Your task to perform on an android device: Go to accessibility settings Image 0: 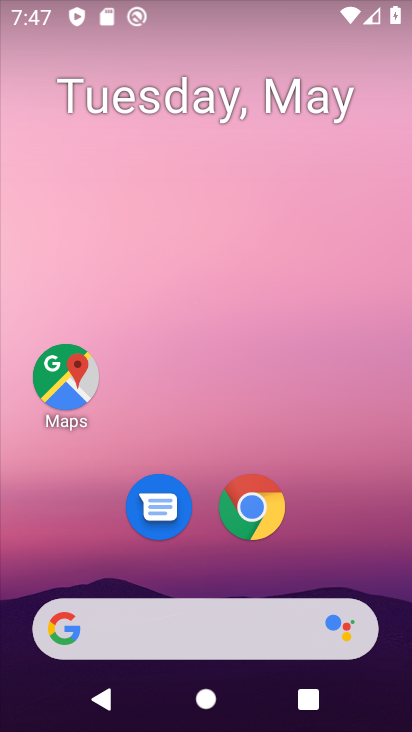
Step 0: drag from (348, 540) to (257, 34)
Your task to perform on an android device: Go to accessibility settings Image 1: 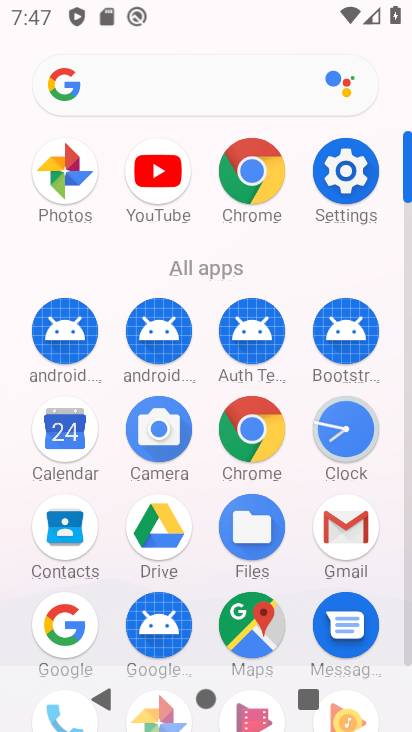
Step 1: drag from (0, 597) to (11, 342)
Your task to perform on an android device: Go to accessibility settings Image 2: 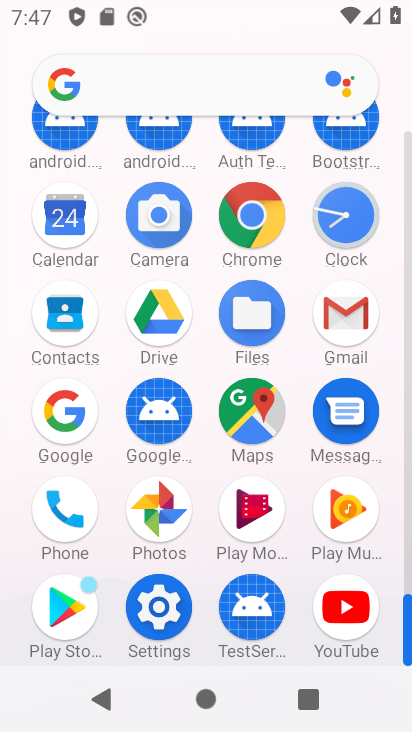
Step 2: click (161, 605)
Your task to perform on an android device: Go to accessibility settings Image 3: 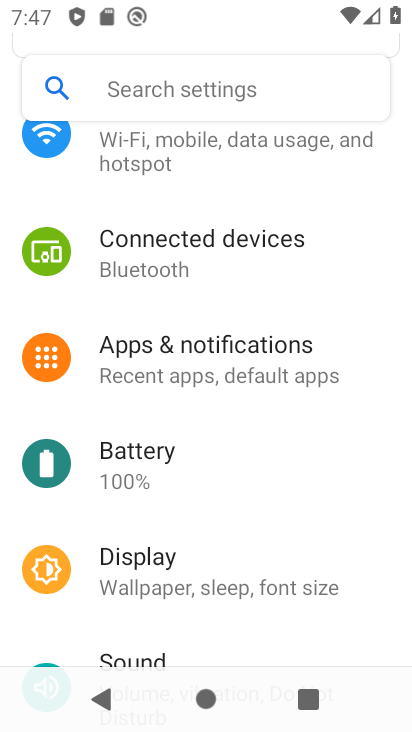
Step 3: drag from (235, 605) to (204, 169)
Your task to perform on an android device: Go to accessibility settings Image 4: 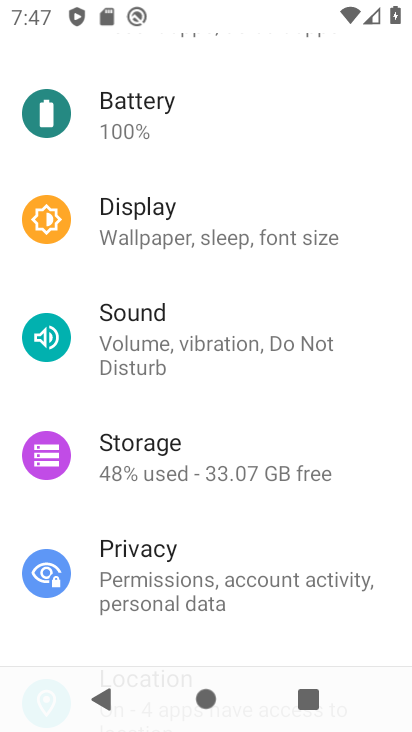
Step 4: drag from (238, 611) to (252, 207)
Your task to perform on an android device: Go to accessibility settings Image 5: 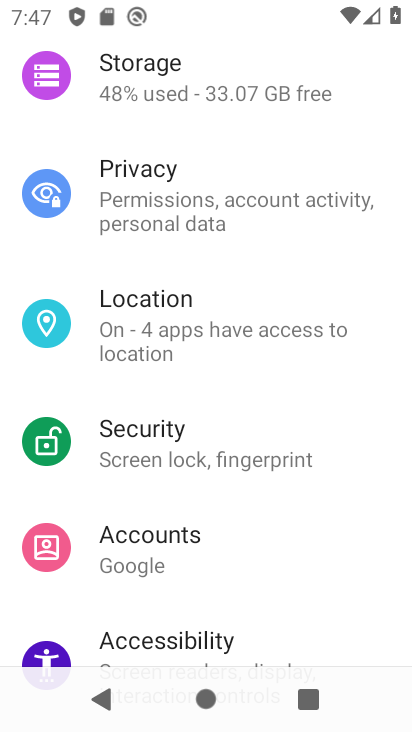
Step 5: drag from (246, 599) to (280, 205)
Your task to perform on an android device: Go to accessibility settings Image 6: 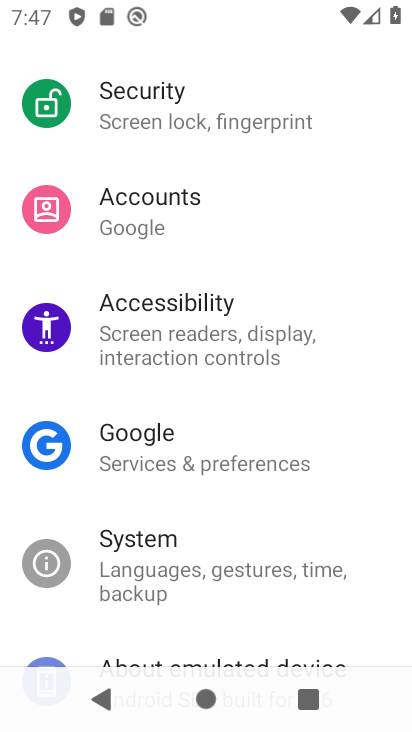
Step 6: click (210, 318)
Your task to perform on an android device: Go to accessibility settings Image 7: 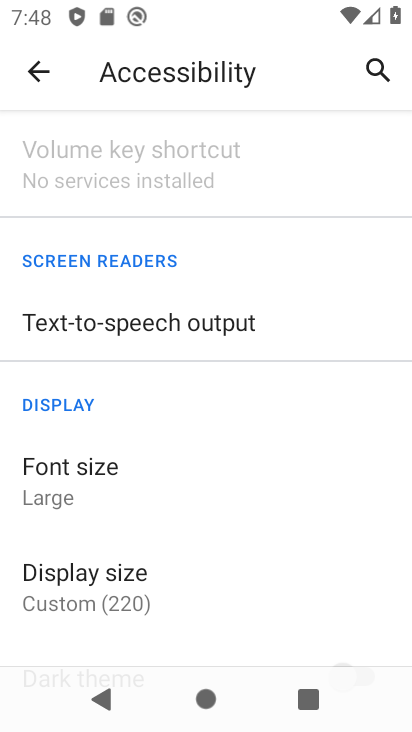
Step 7: drag from (253, 555) to (284, 131)
Your task to perform on an android device: Go to accessibility settings Image 8: 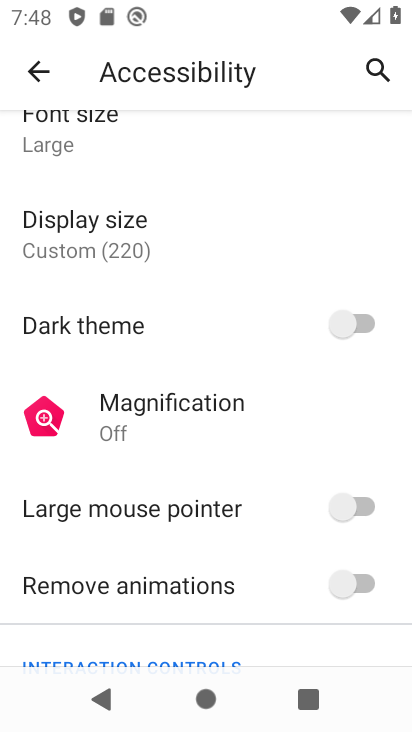
Step 8: drag from (253, 519) to (274, 141)
Your task to perform on an android device: Go to accessibility settings Image 9: 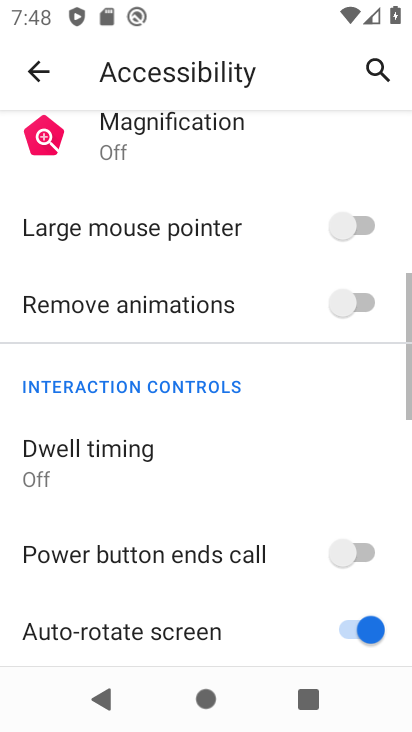
Step 9: click (226, 164)
Your task to perform on an android device: Go to accessibility settings Image 10: 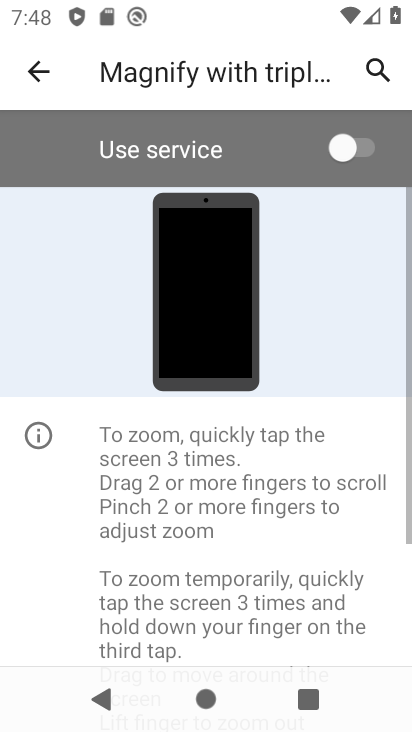
Step 10: task complete